Your task to perform on an android device: What's the weather going to be this weekend? Image 0: 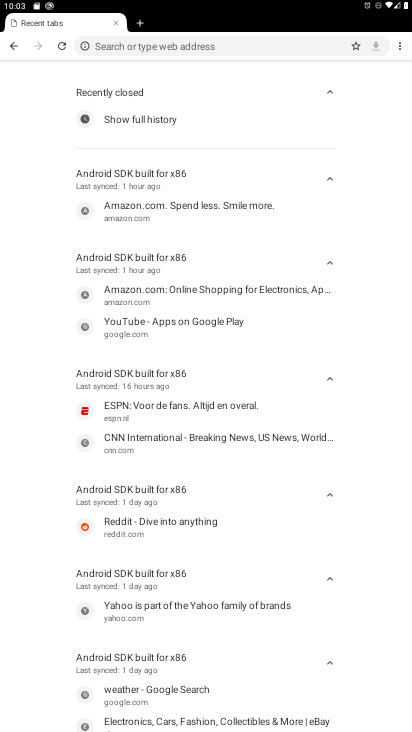
Step 0: press home button
Your task to perform on an android device: What's the weather going to be this weekend? Image 1: 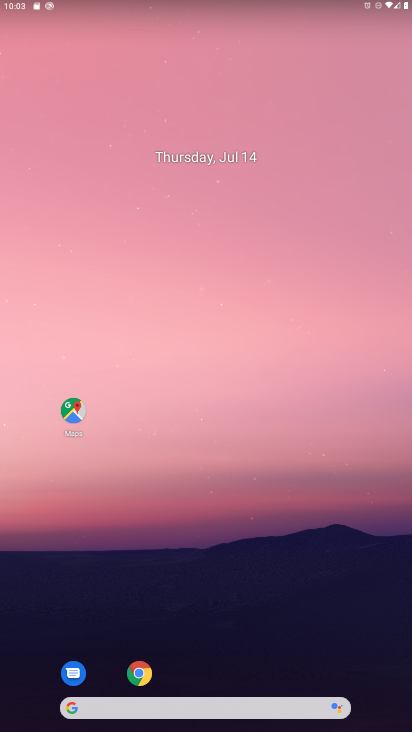
Step 1: drag from (172, 698) to (236, 241)
Your task to perform on an android device: What's the weather going to be this weekend? Image 2: 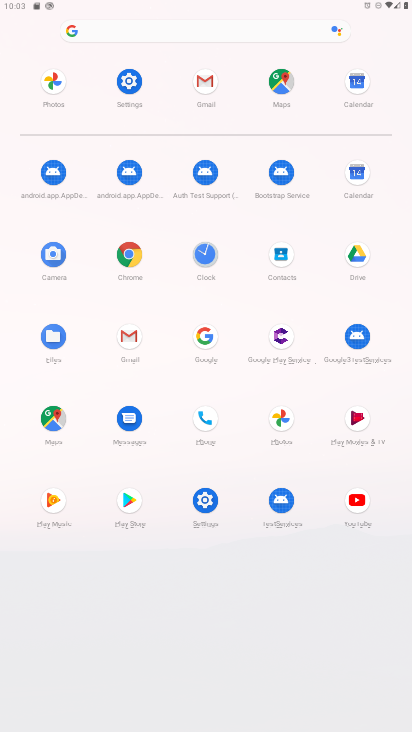
Step 2: click (204, 334)
Your task to perform on an android device: What's the weather going to be this weekend? Image 3: 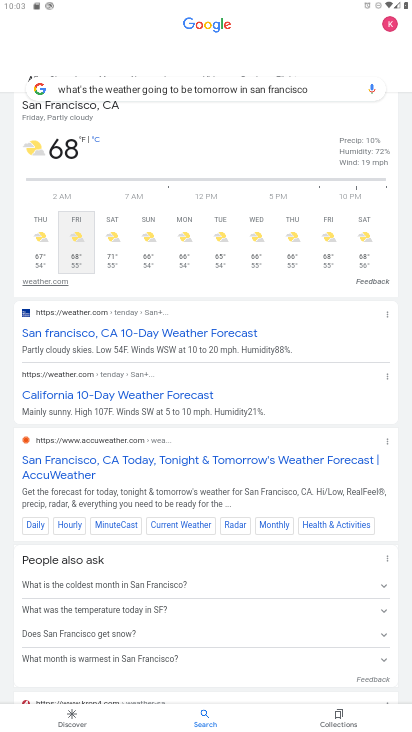
Step 3: click (328, 91)
Your task to perform on an android device: What's the weather going to be this weekend? Image 4: 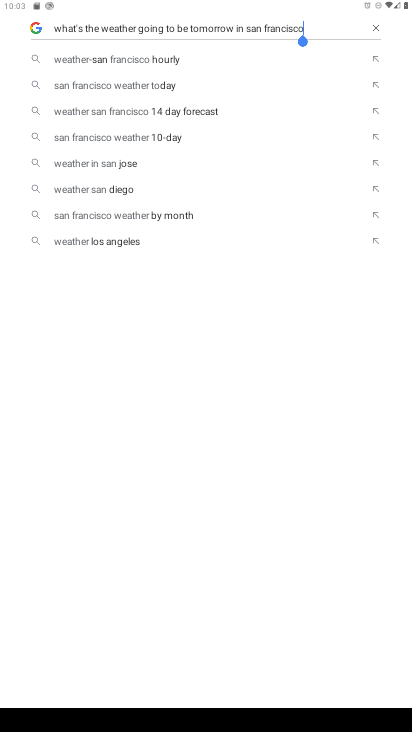
Step 4: click (377, 25)
Your task to perform on an android device: What's the weather going to be this weekend? Image 5: 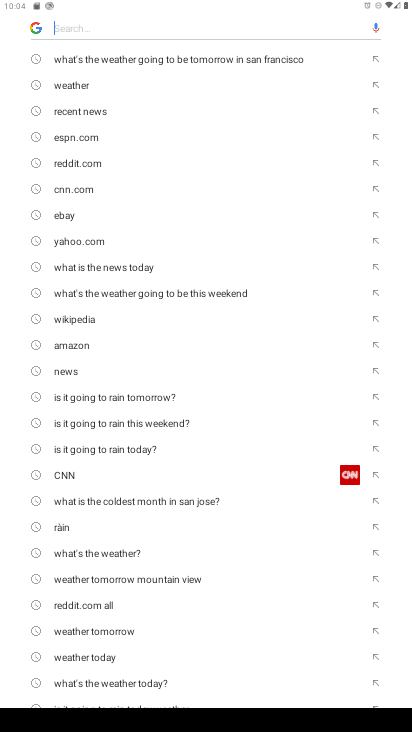
Step 5: type "What's the weather going to be this weekend?"
Your task to perform on an android device: What's the weather going to be this weekend? Image 6: 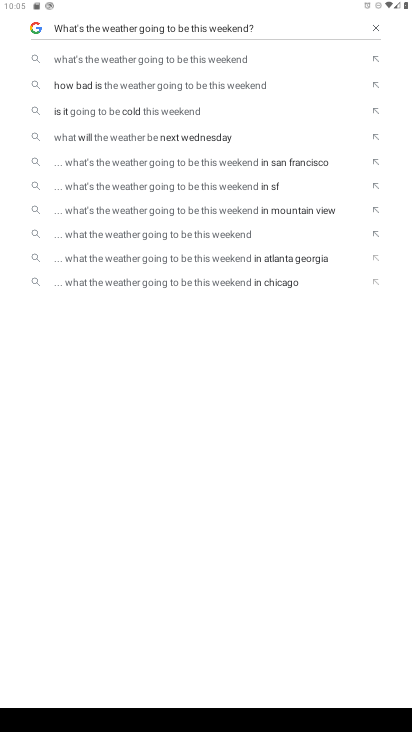
Step 6: click (208, 57)
Your task to perform on an android device: What's the weather going to be this weekend? Image 7: 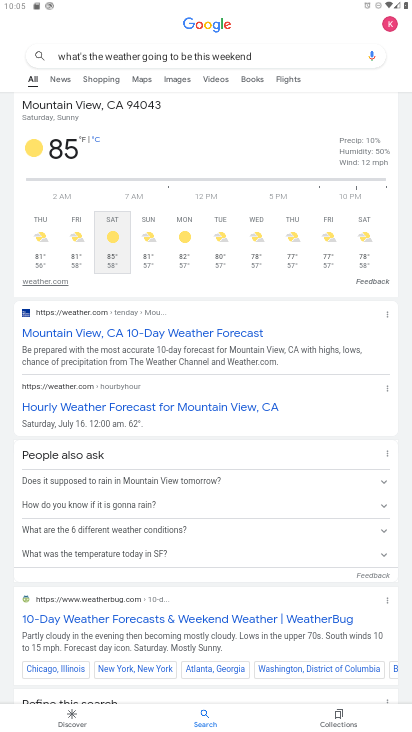
Step 7: task complete